Your task to perform on an android device: all mails in gmail Image 0: 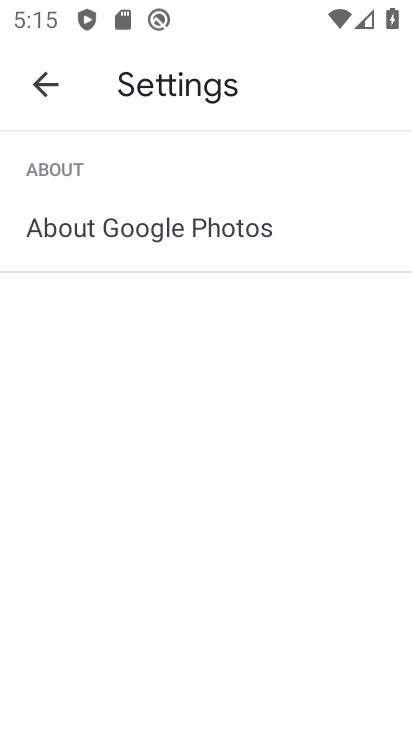
Step 0: press back button
Your task to perform on an android device: all mails in gmail Image 1: 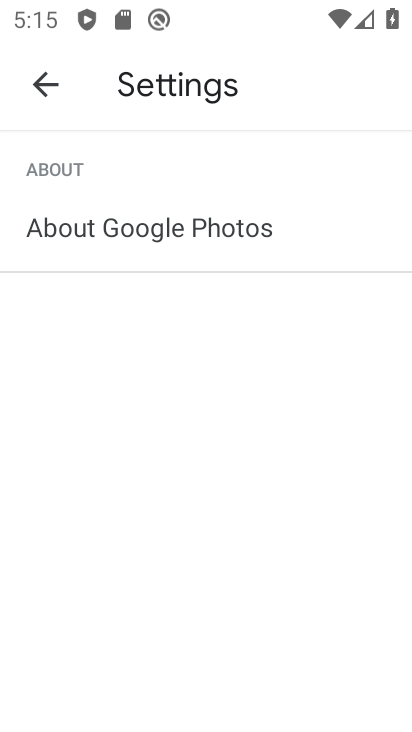
Step 1: press back button
Your task to perform on an android device: all mails in gmail Image 2: 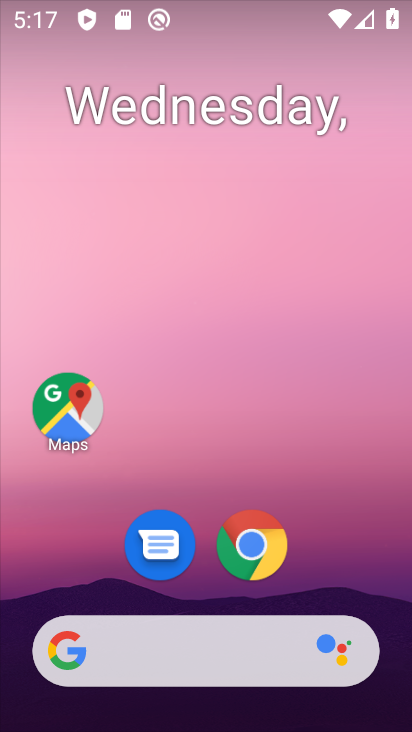
Step 2: drag from (159, 521) to (408, 391)
Your task to perform on an android device: all mails in gmail Image 3: 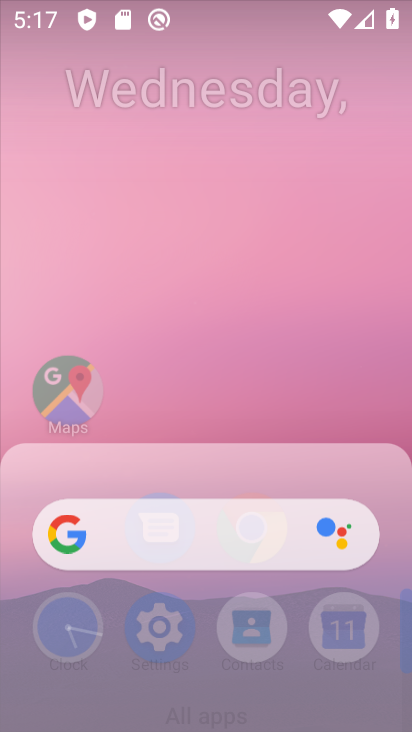
Step 3: click (180, 260)
Your task to perform on an android device: all mails in gmail Image 4: 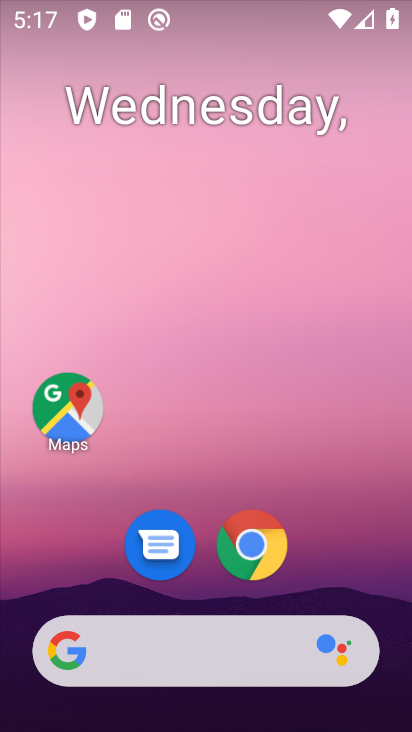
Step 4: drag from (197, 463) to (197, 140)
Your task to perform on an android device: all mails in gmail Image 5: 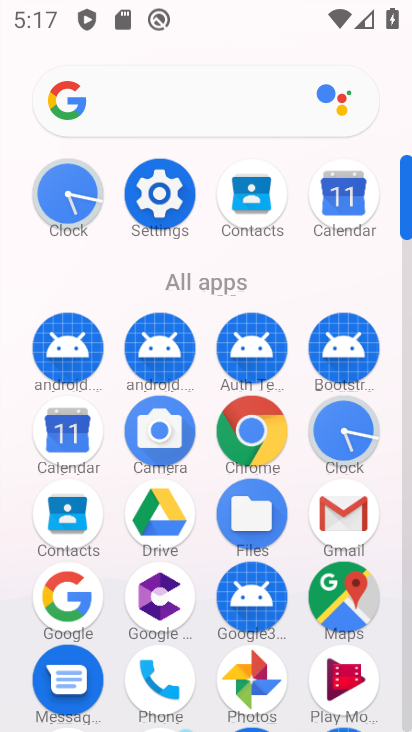
Step 5: click (343, 514)
Your task to perform on an android device: all mails in gmail Image 6: 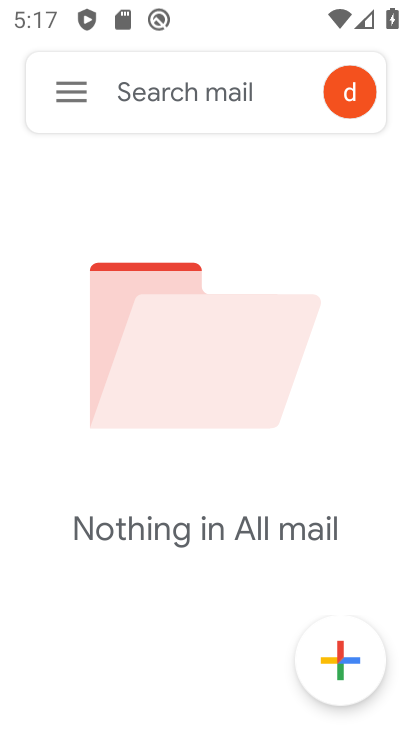
Step 6: task complete